Your task to perform on an android device: turn off translation in the chrome app Image 0: 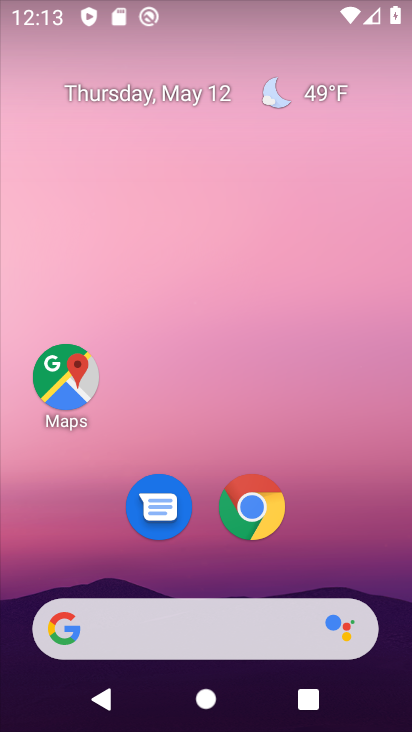
Step 0: click (240, 515)
Your task to perform on an android device: turn off translation in the chrome app Image 1: 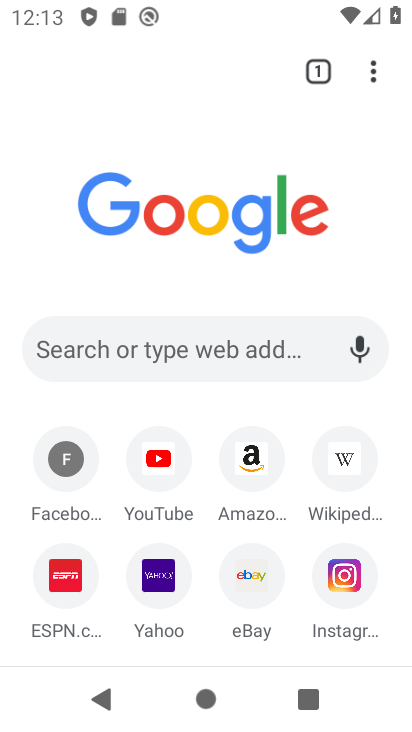
Step 1: click (381, 68)
Your task to perform on an android device: turn off translation in the chrome app Image 2: 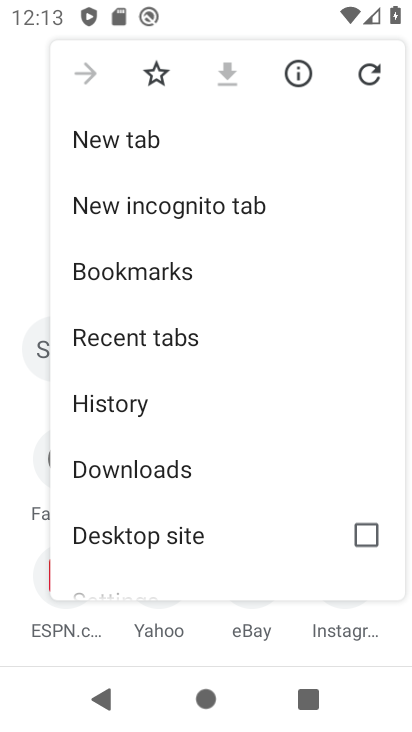
Step 2: drag from (246, 489) to (269, 235)
Your task to perform on an android device: turn off translation in the chrome app Image 3: 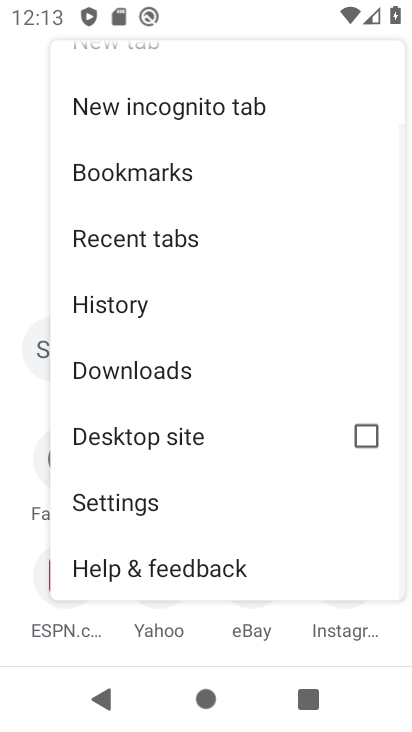
Step 3: click (220, 512)
Your task to perform on an android device: turn off translation in the chrome app Image 4: 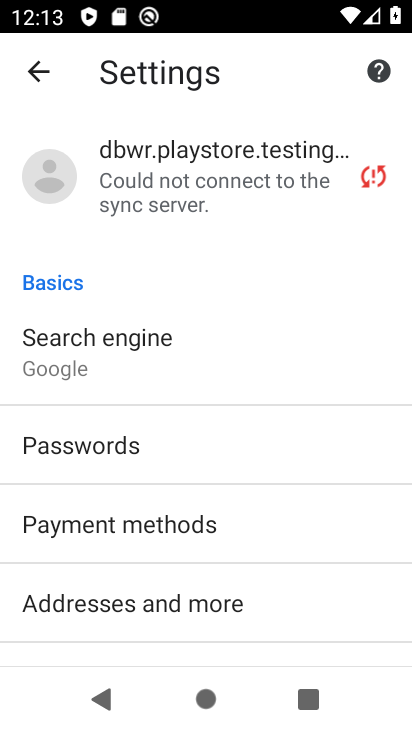
Step 4: drag from (185, 582) to (181, 345)
Your task to perform on an android device: turn off translation in the chrome app Image 5: 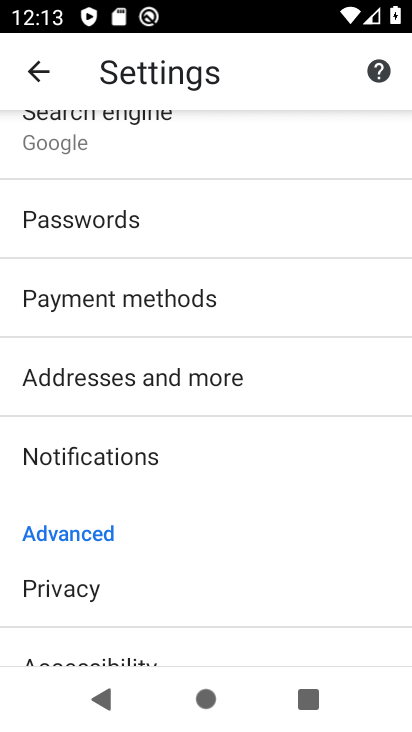
Step 5: drag from (120, 619) to (148, 351)
Your task to perform on an android device: turn off translation in the chrome app Image 6: 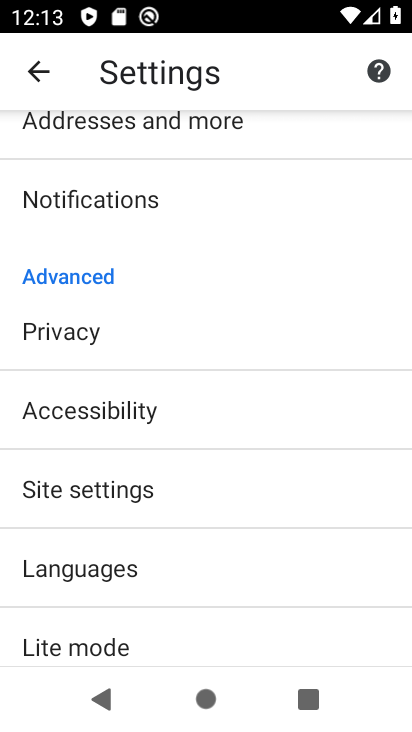
Step 6: drag from (171, 645) to (181, 480)
Your task to perform on an android device: turn off translation in the chrome app Image 7: 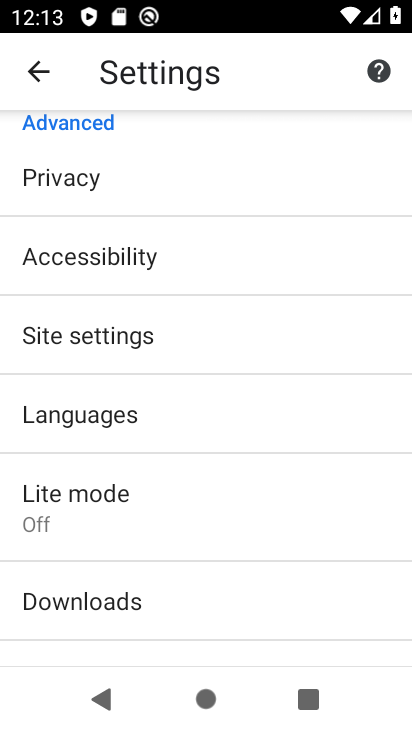
Step 7: click (178, 394)
Your task to perform on an android device: turn off translation in the chrome app Image 8: 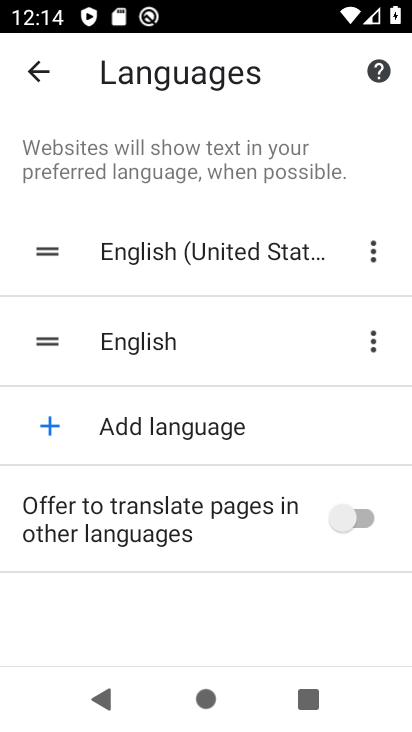
Step 8: task complete